Your task to perform on an android device: turn vacation reply on in the gmail app Image 0: 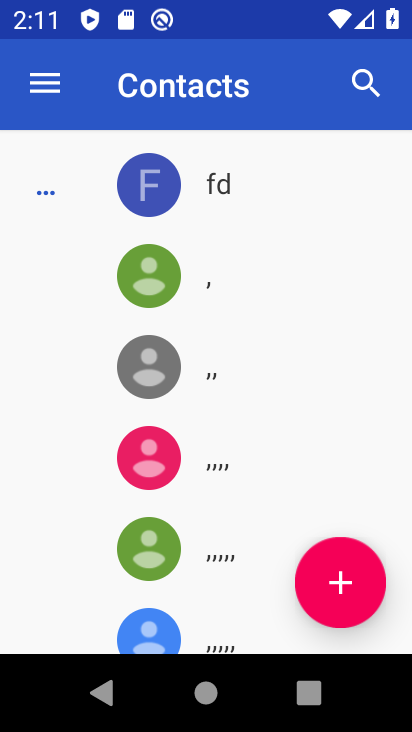
Step 0: press home button
Your task to perform on an android device: turn vacation reply on in the gmail app Image 1: 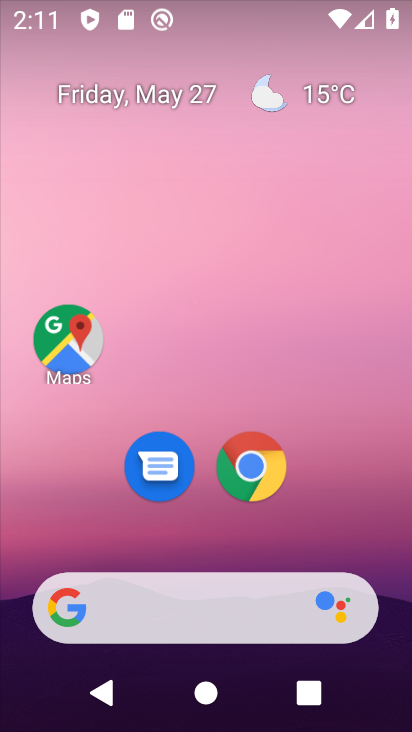
Step 1: drag from (360, 562) to (336, 105)
Your task to perform on an android device: turn vacation reply on in the gmail app Image 2: 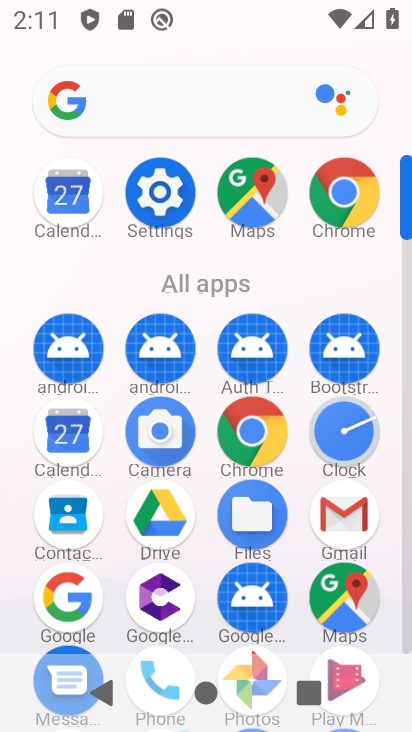
Step 2: click (164, 211)
Your task to perform on an android device: turn vacation reply on in the gmail app Image 3: 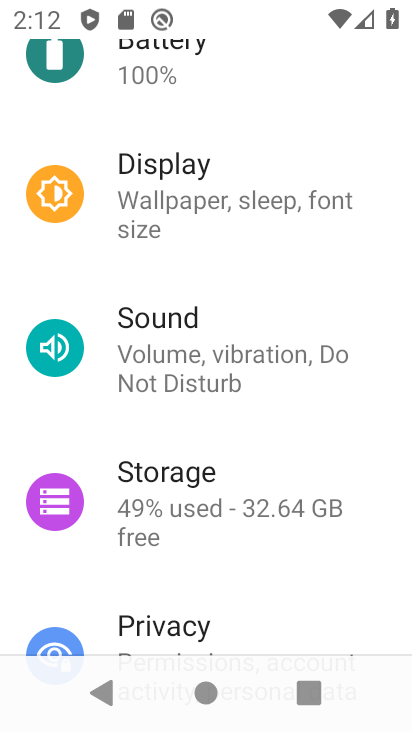
Step 3: press home button
Your task to perform on an android device: turn vacation reply on in the gmail app Image 4: 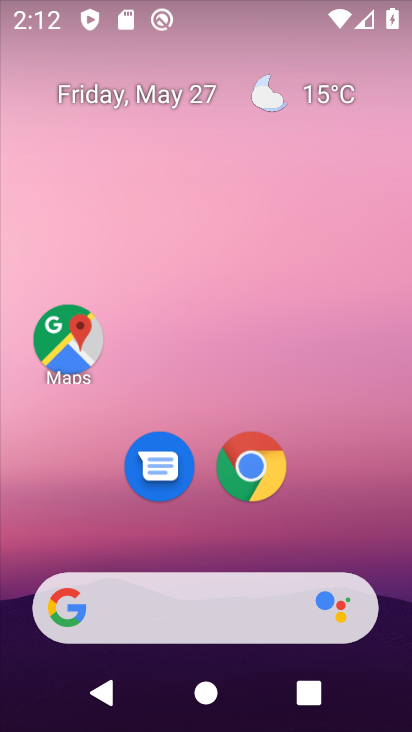
Step 4: drag from (346, 540) to (314, 176)
Your task to perform on an android device: turn vacation reply on in the gmail app Image 5: 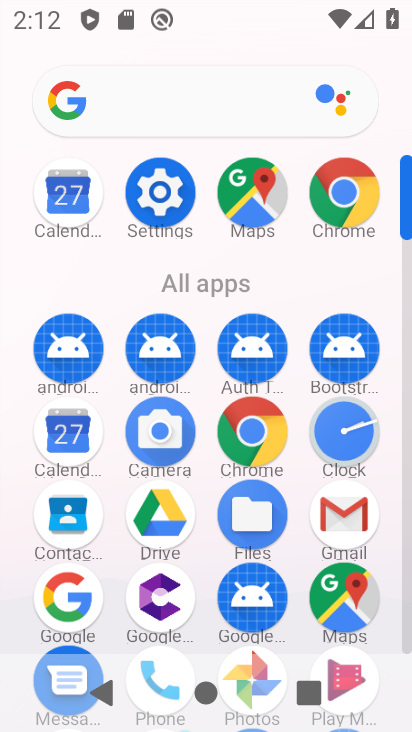
Step 5: click (295, 236)
Your task to perform on an android device: turn vacation reply on in the gmail app Image 6: 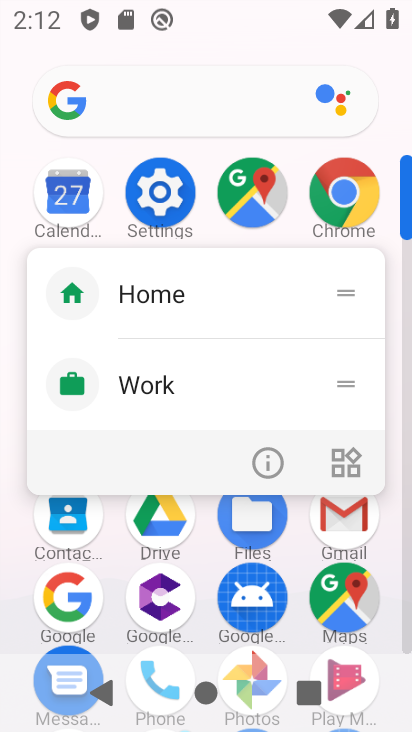
Step 6: click (329, 518)
Your task to perform on an android device: turn vacation reply on in the gmail app Image 7: 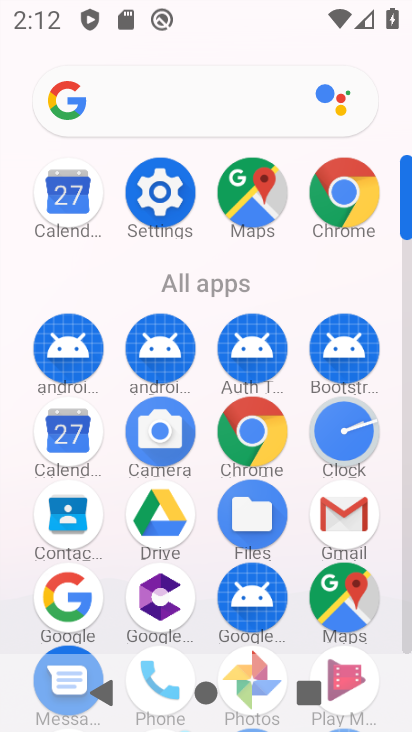
Step 7: click (334, 524)
Your task to perform on an android device: turn vacation reply on in the gmail app Image 8: 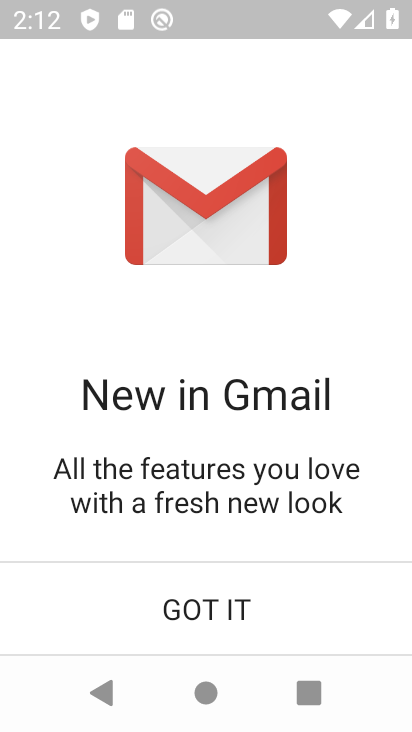
Step 8: click (239, 614)
Your task to perform on an android device: turn vacation reply on in the gmail app Image 9: 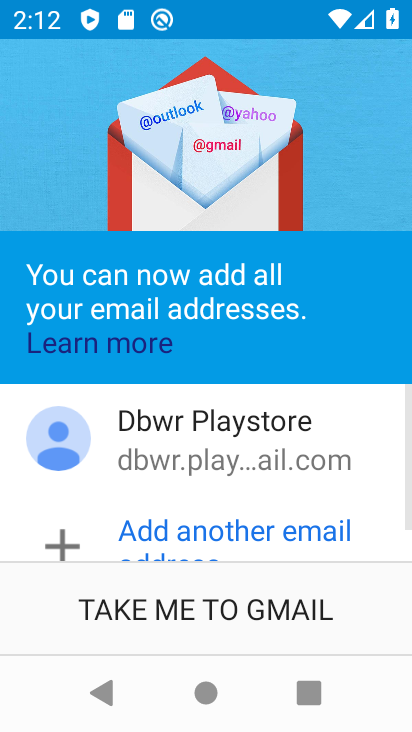
Step 9: click (239, 614)
Your task to perform on an android device: turn vacation reply on in the gmail app Image 10: 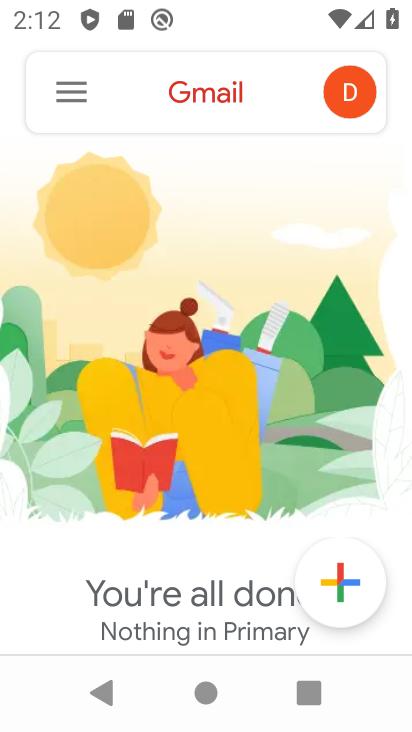
Step 10: click (69, 104)
Your task to perform on an android device: turn vacation reply on in the gmail app Image 11: 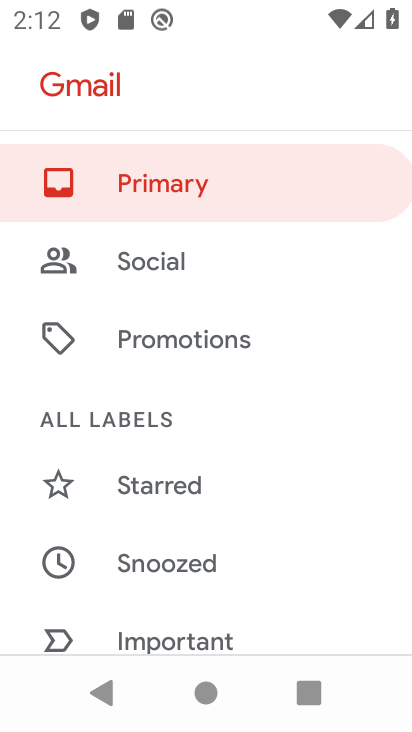
Step 11: drag from (233, 617) to (262, 258)
Your task to perform on an android device: turn vacation reply on in the gmail app Image 12: 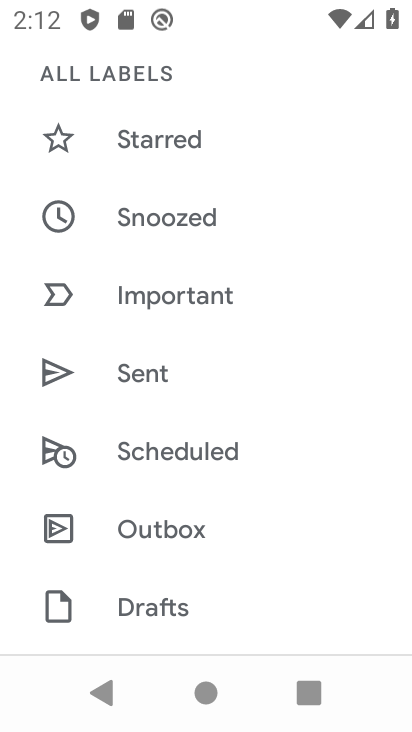
Step 12: drag from (221, 582) to (217, 252)
Your task to perform on an android device: turn vacation reply on in the gmail app Image 13: 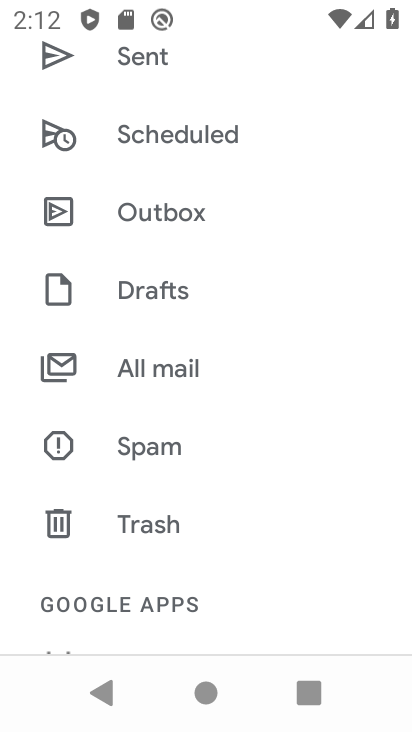
Step 13: drag from (192, 500) to (224, 270)
Your task to perform on an android device: turn vacation reply on in the gmail app Image 14: 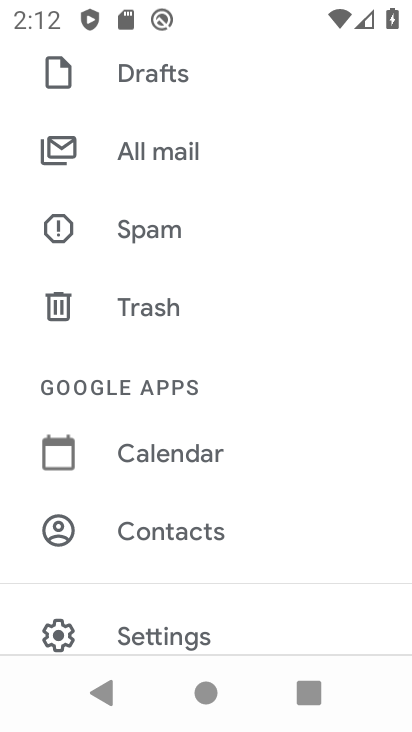
Step 14: click (200, 642)
Your task to perform on an android device: turn vacation reply on in the gmail app Image 15: 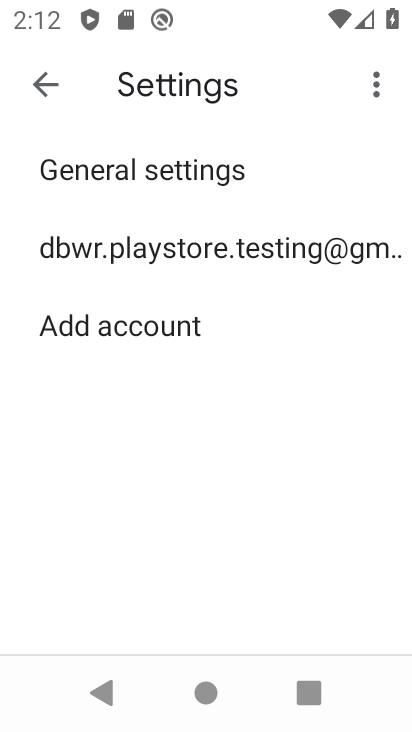
Step 15: click (238, 233)
Your task to perform on an android device: turn vacation reply on in the gmail app Image 16: 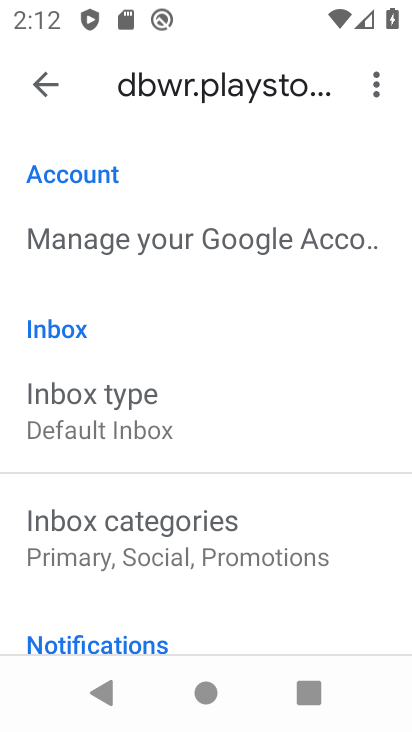
Step 16: task complete